Your task to perform on an android device: make emails show in primary in the gmail app Image 0: 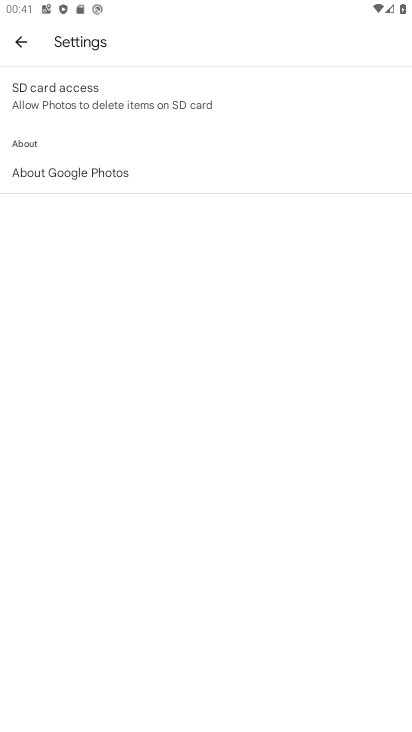
Step 0: click (11, 35)
Your task to perform on an android device: make emails show in primary in the gmail app Image 1: 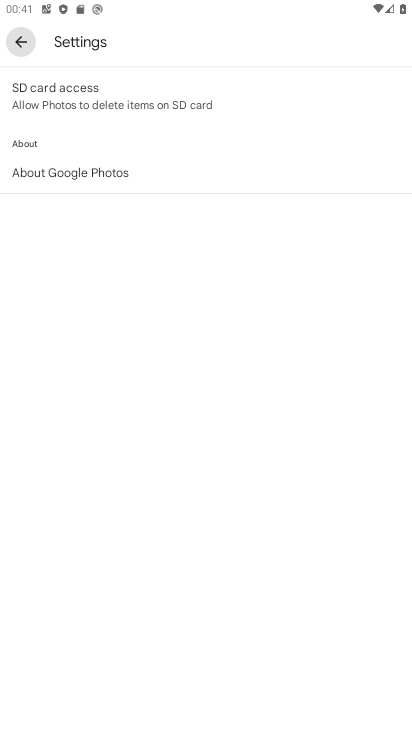
Step 1: click (2, 30)
Your task to perform on an android device: make emails show in primary in the gmail app Image 2: 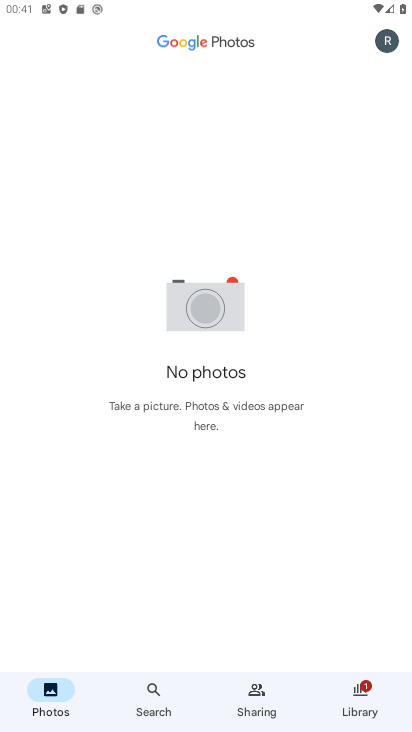
Step 2: press back button
Your task to perform on an android device: make emails show in primary in the gmail app Image 3: 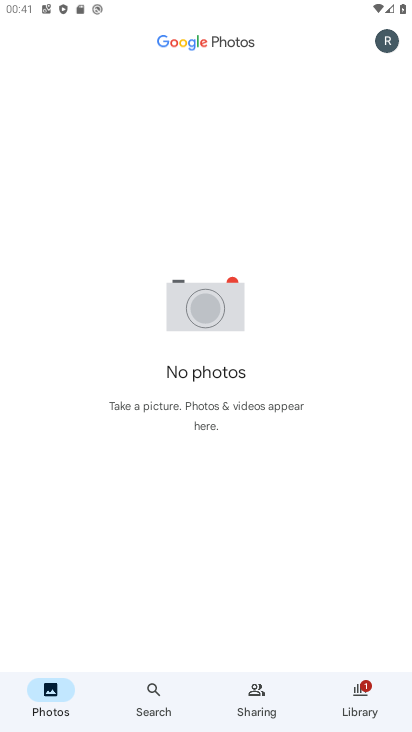
Step 3: press back button
Your task to perform on an android device: make emails show in primary in the gmail app Image 4: 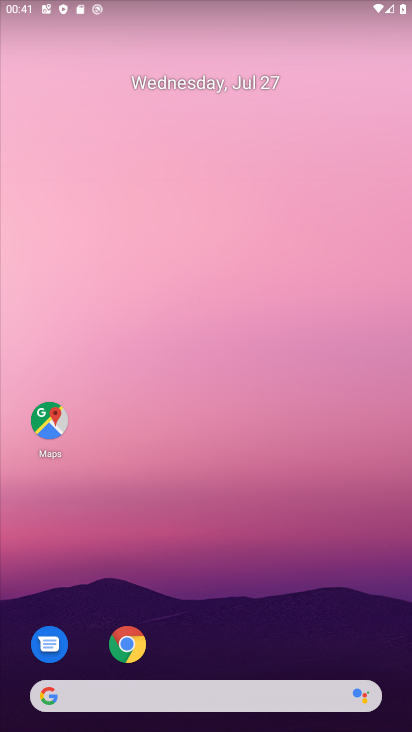
Step 4: drag from (215, 432) to (155, 39)
Your task to perform on an android device: make emails show in primary in the gmail app Image 5: 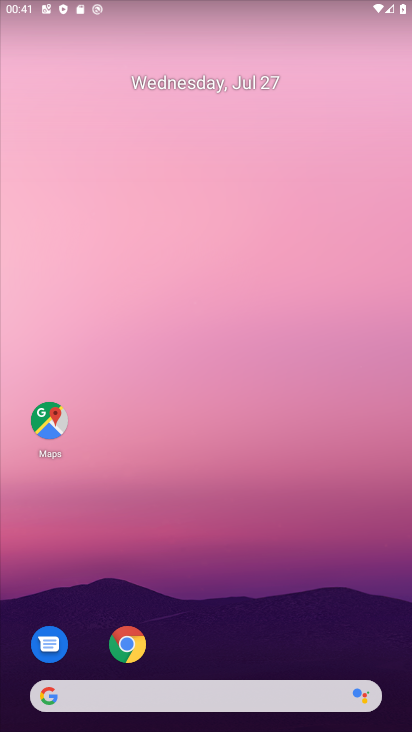
Step 5: drag from (219, 223) to (176, 20)
Your task to perform on an android device: make emails show in primary in the gmail app Image 6: 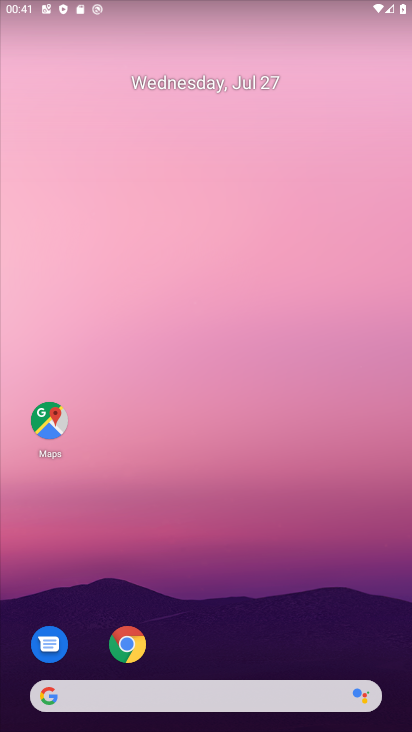
Step 6: drag from (246, 286) to (171, 12)
Your task to perform on an android device: make emails show in primary in the gmail app Image 7: 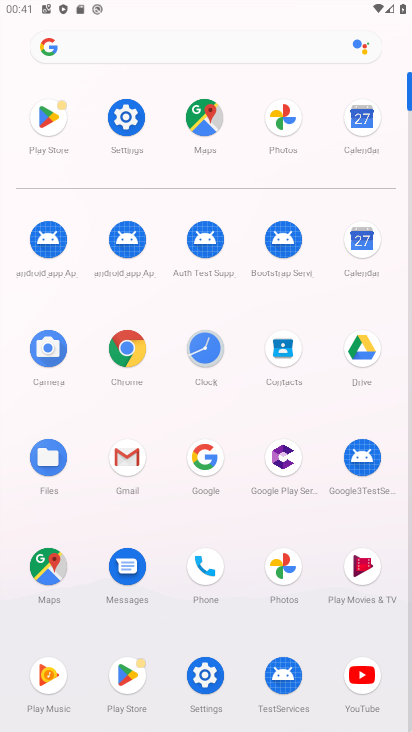
Step 7: drag from (201, 272) to (192, 87)
Your task to perform on an android device: make emails show in primary in the gmail app Image 8: 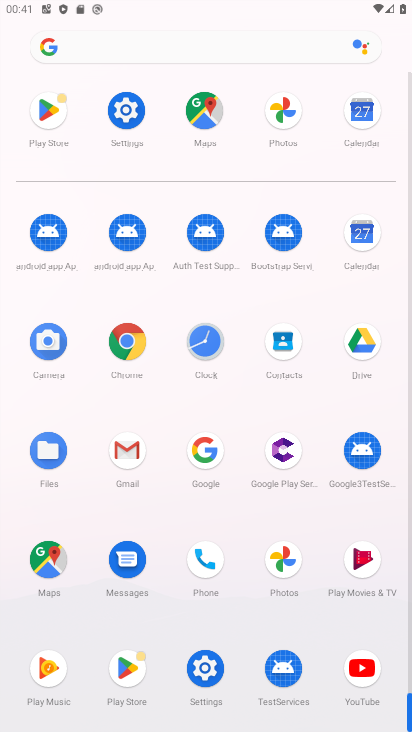
Step 8: click (135, 444)
Your task to perform on an android device: make emails show in primary in the gmail app Image 9: 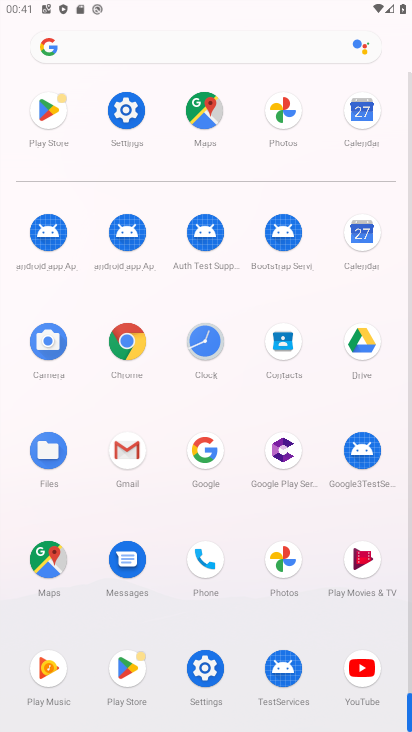
Step 9: click (134, 444)
Your task to perform on an android device: make emails show in primary in the gmail app Image 10: 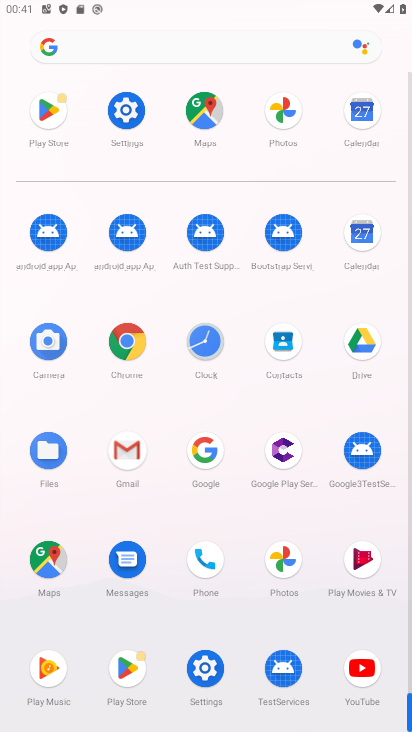
Step 10: click (133, 444)
Your task to perform on an android device: make emails show in primary in the gmail app Image 11: 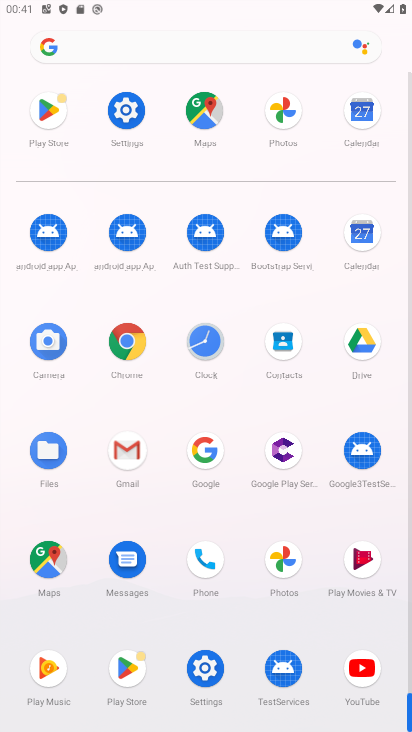
Step 11: click (131, 444)
Your task to perform on an android device: make emails show in primary in the gmail app Image 12: 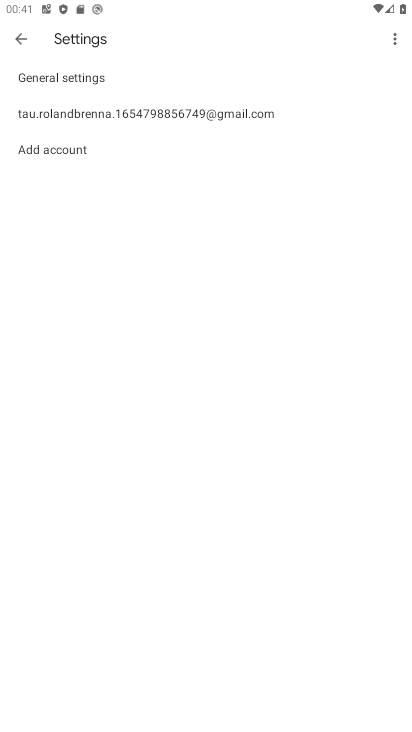
Step 12: click (129, 441)
Your task to perform on an android device: make emails show in primary in the gmail app Image 13: 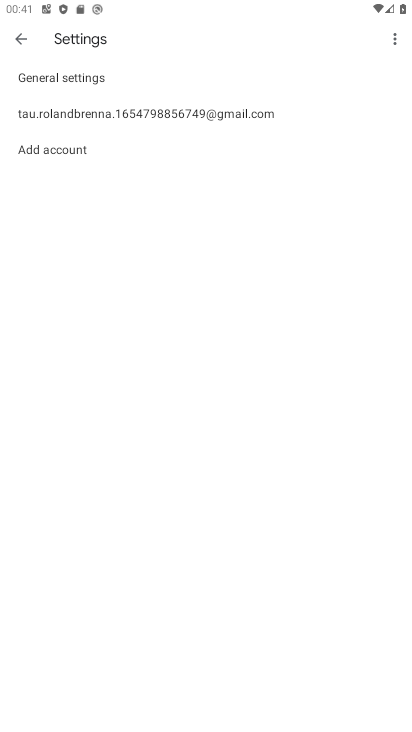
Step 13: click (129, 443)
Your task to perform on an android device: make emails show in primary in the gmail app Image 14: 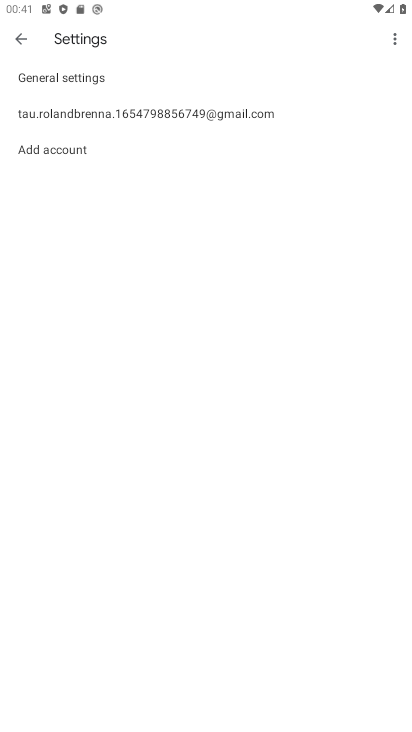
Step 14: click (62, 118)
Your task to perform on an android device: make emails show in primary in the gmail app Image 15: 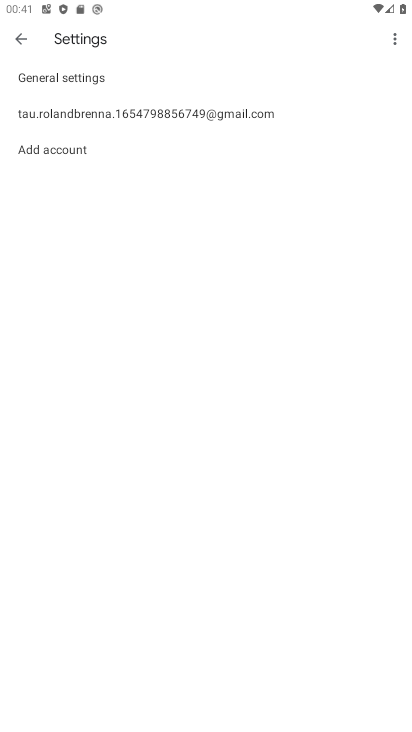
Step 15: click (58, 106)
Your task to perform on an android device: make emails show in primary in the gmail app Image 16: 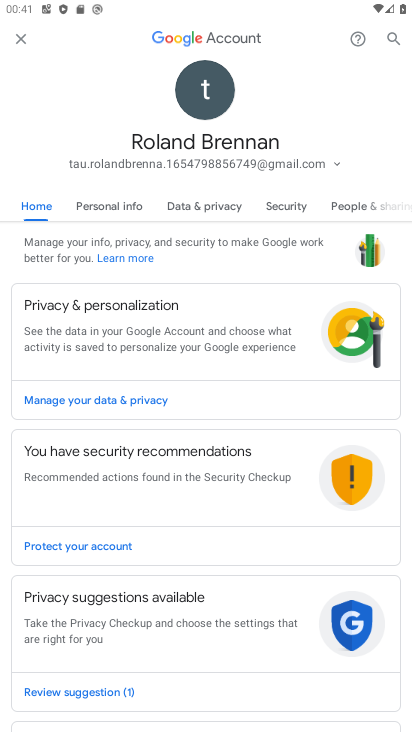
Step 16: click (22, 41)
Your task to perform on an android device: make emails show in primary in the gmail app Image 17: 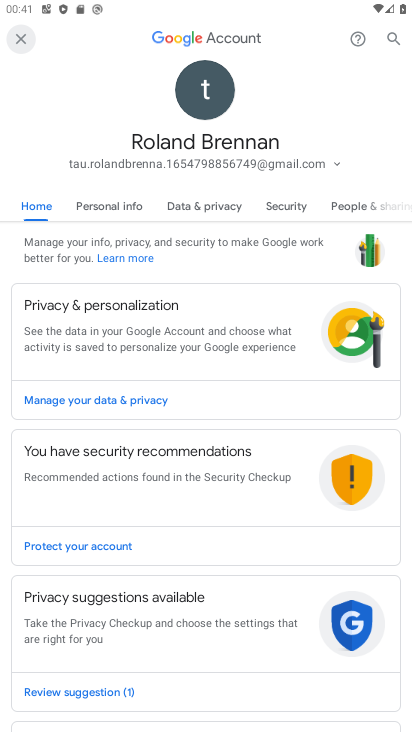
Step 17: click (19, 44)
Your task to perform on an android device: make emails show in primary in the gmail app Image 18: 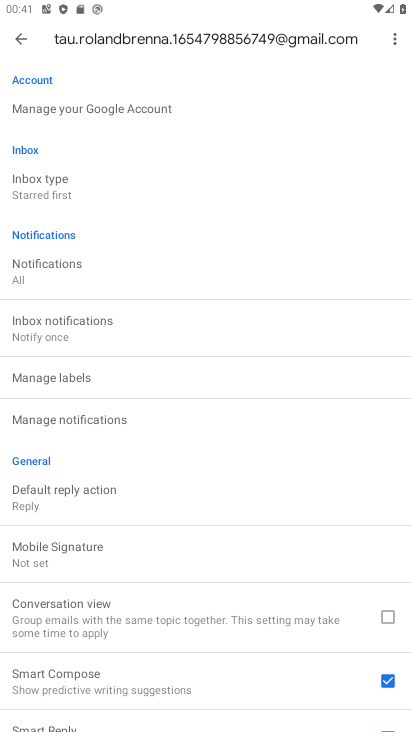
Step 18: click (31, 191)
Your task to perform on an android device: make emails show in primary in the gmail app Image 19: 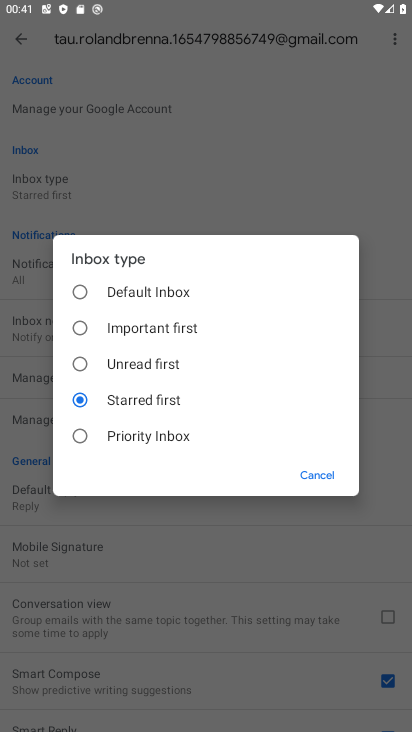
Step 19: click (78, 289)
Your task to perform on an android device: make emails show in primary in the gmail app Image 20: 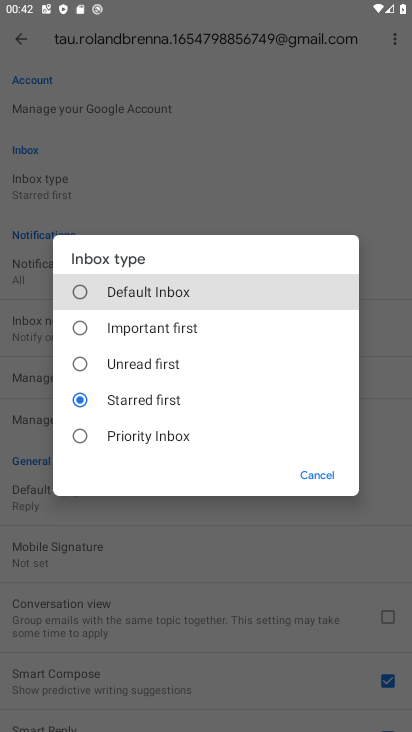
Step 20: click (78, 289)
Your task to perform on an android device: make emails show in primary in the gmail app Image 21: 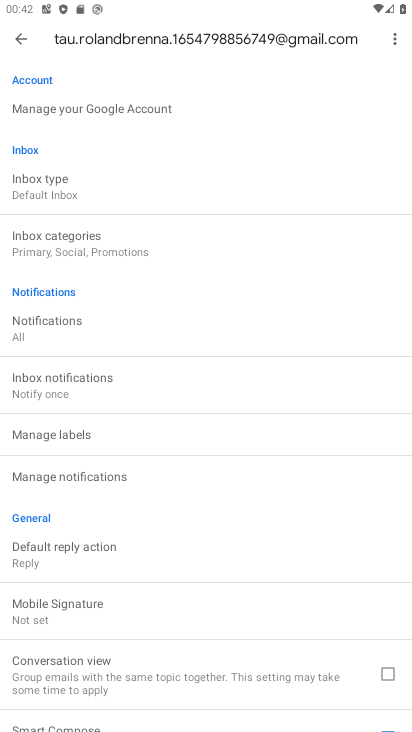
Step 21: task complete